Your task to perform on an android device: toggle location history Image 0: 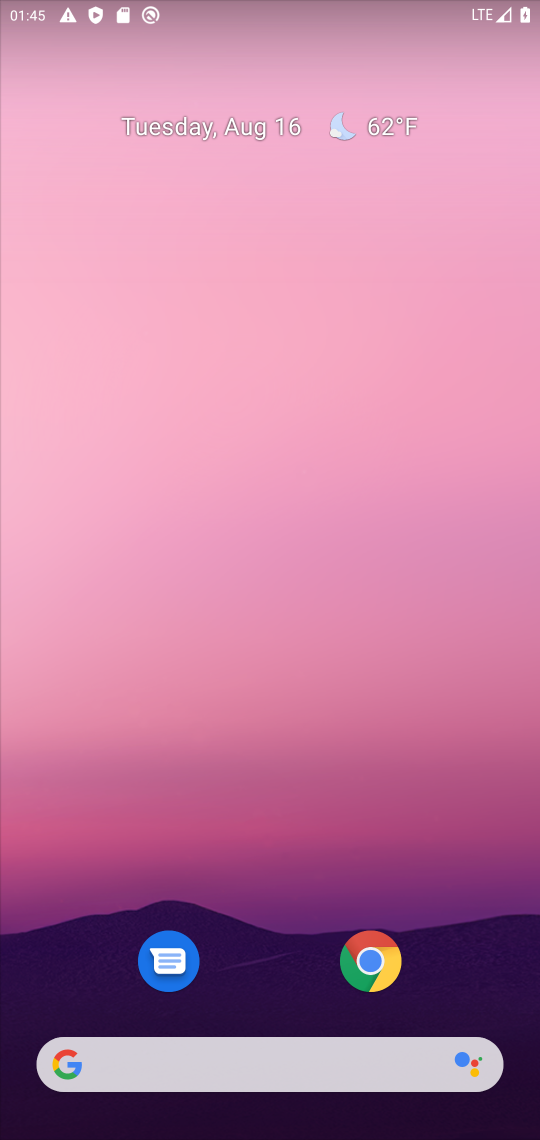
Step 0: drag from (262, 741) to (313, 135)
Your task to perform on an android device: toggle location history Image 1: 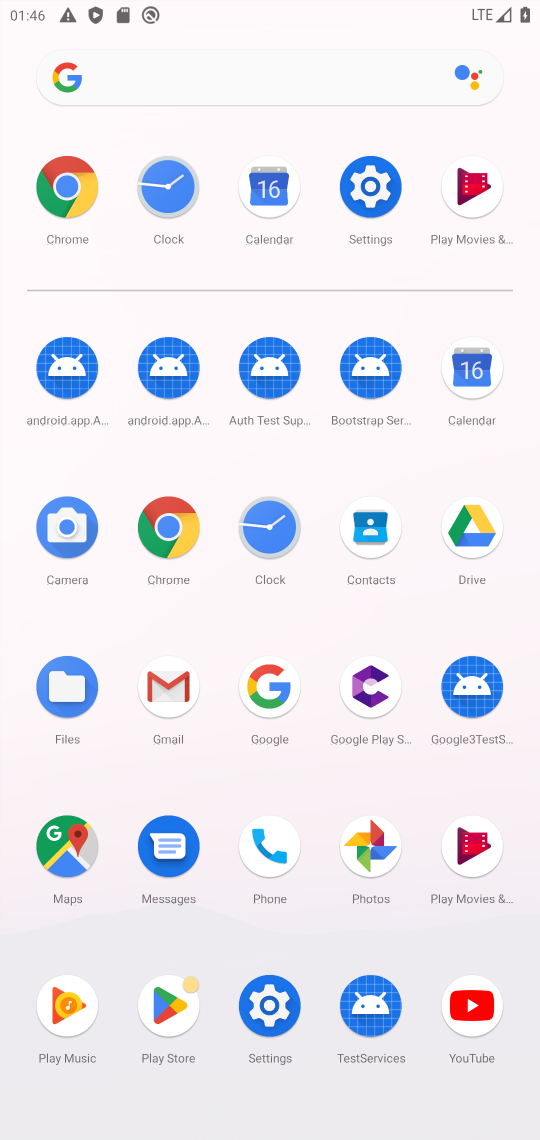
Step 1: click (65, 844)
Your task to perform on an android device: toggle location history Image 2: 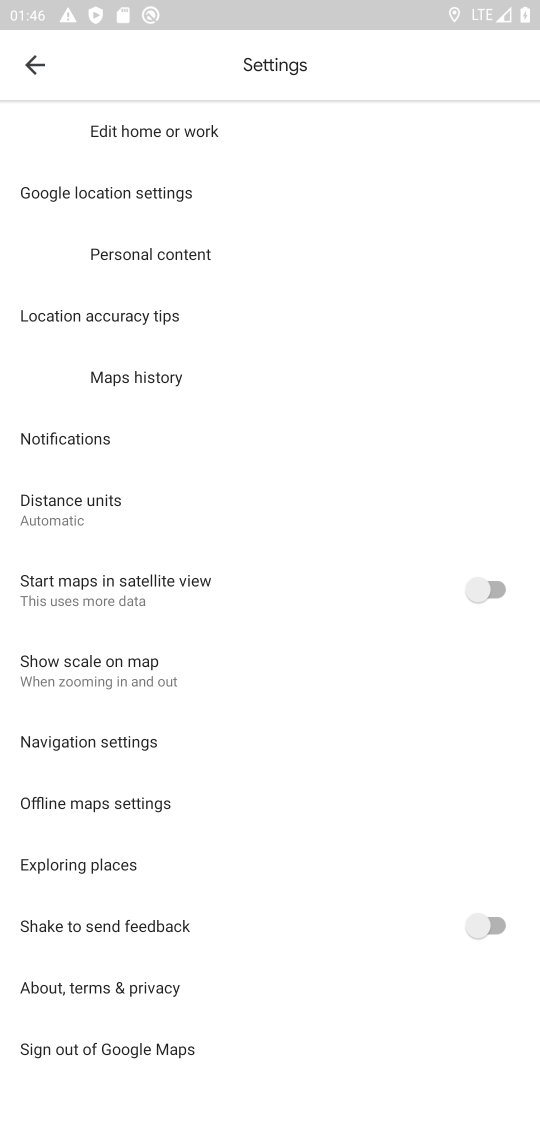
Step 2: click (29, 66)
Your task to perform on an android device: toggle location history Image 3: 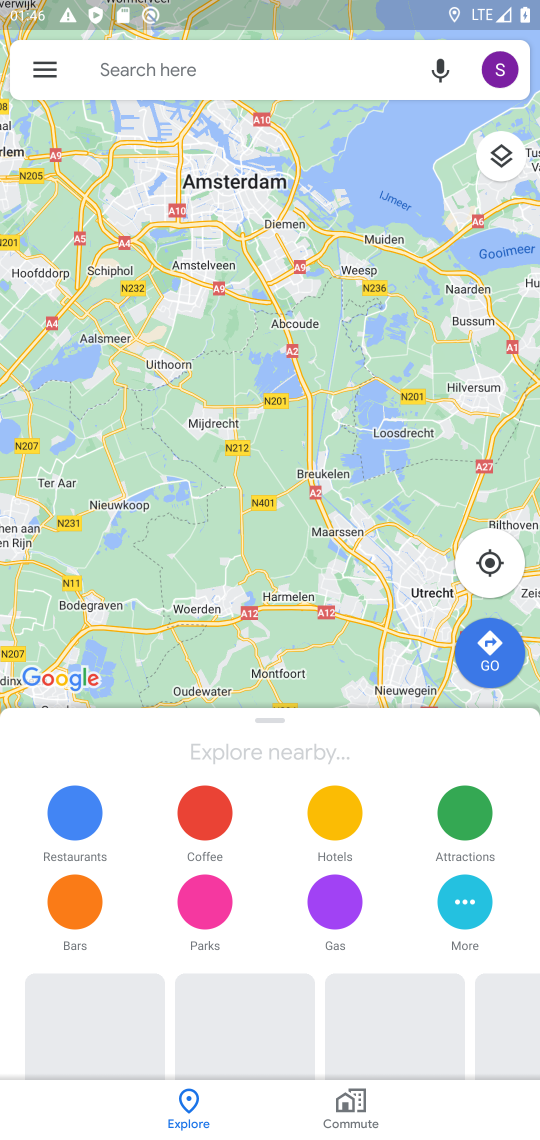
Step 3: click (40, 74)
Your task to perform on an android device: toggle location history Image 4: 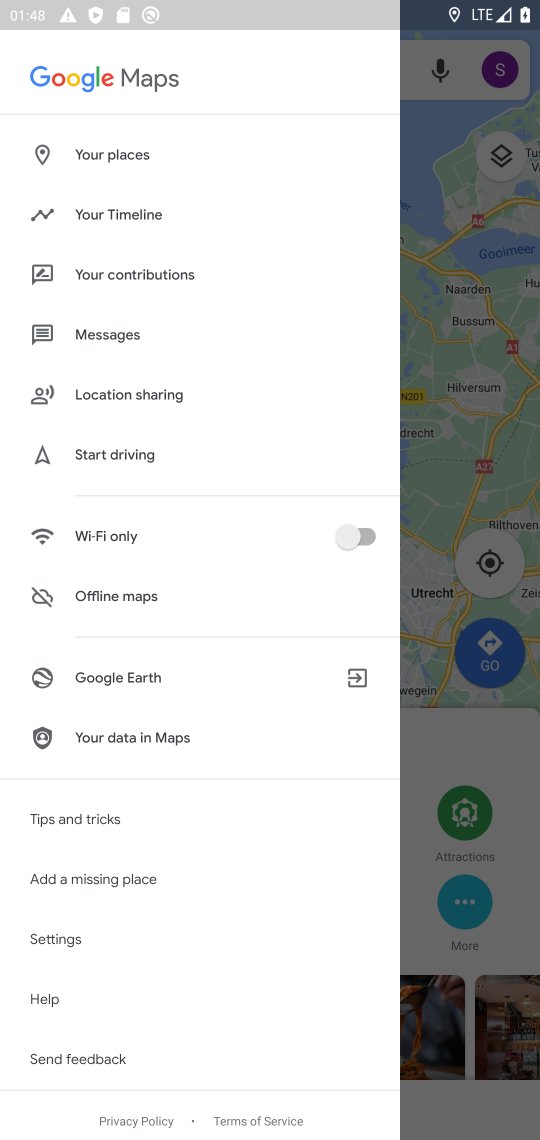
Step 4: click (106, 225)
Your task to perform on an android device: toggle location history Image 5: 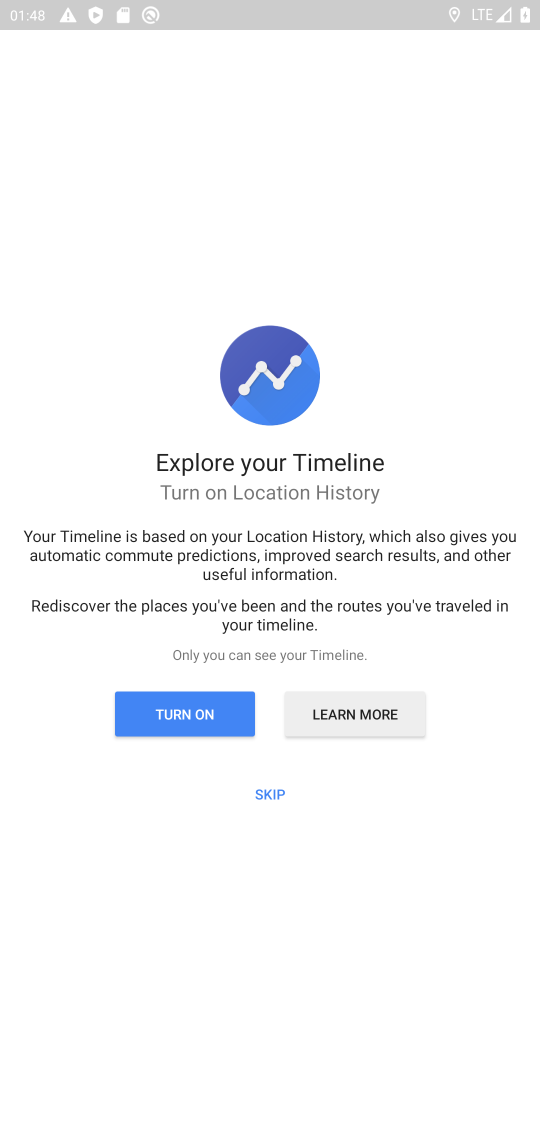
Step 5: click (172, 700)
Your task to perform on an android device: toggle location history Image 6: 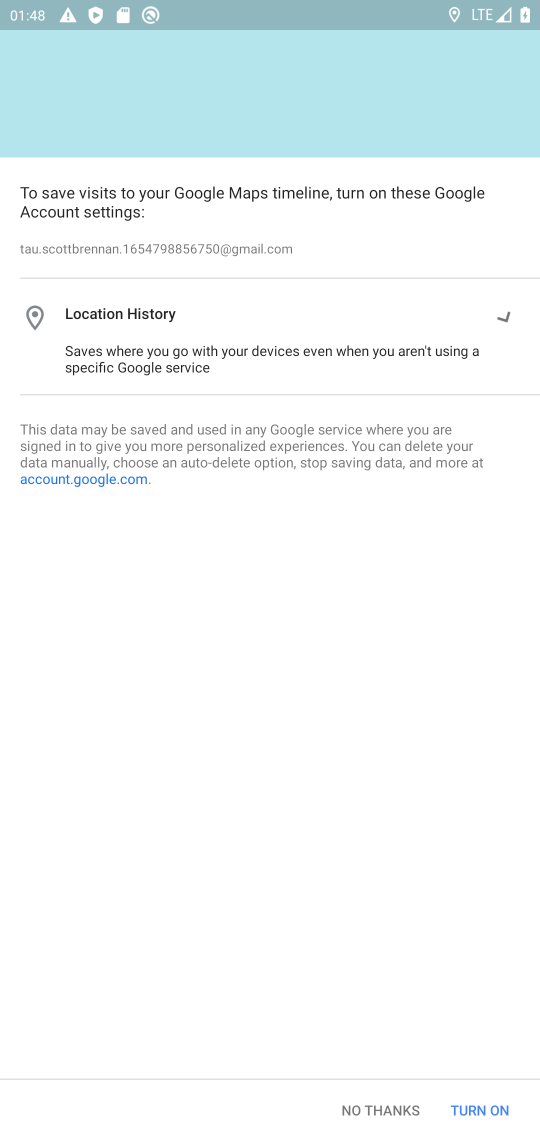
Step 6: click (514, 67)
Your task to perform on an android device: toggle location history Image 7: 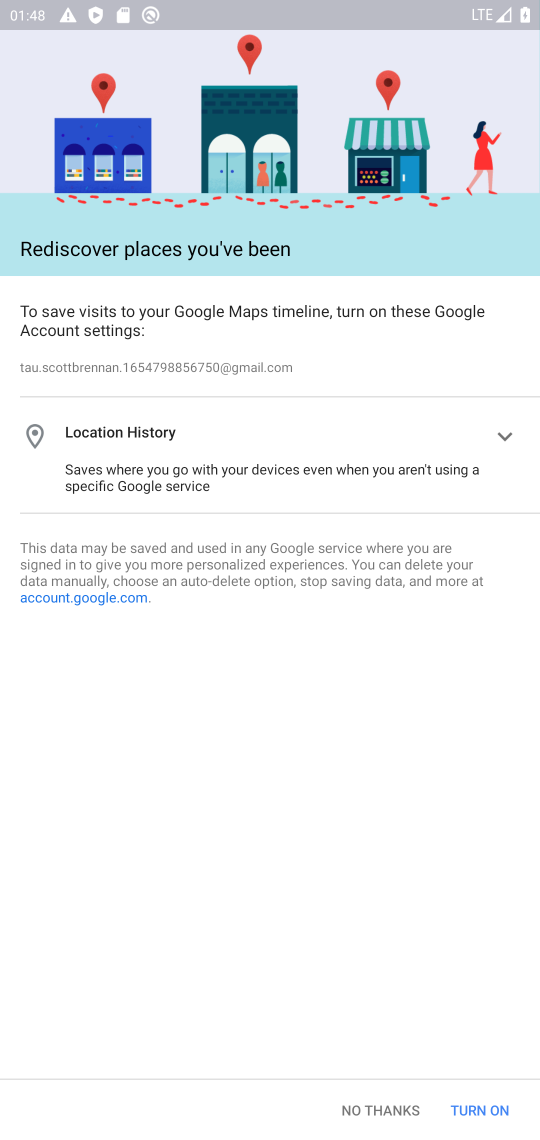
Step 7: click (498, 1109)
Your task to perform on an android device: toggle location history Image 8: 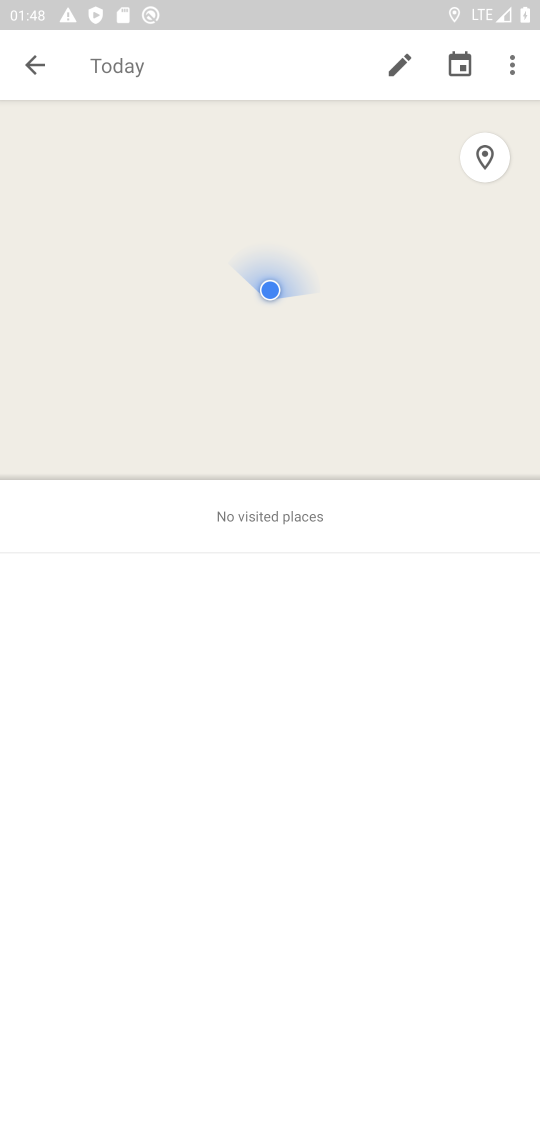
Step 8: task complete